Your task to perform on an android device: Open Google Chrome and open the bookmarks view Image 0: 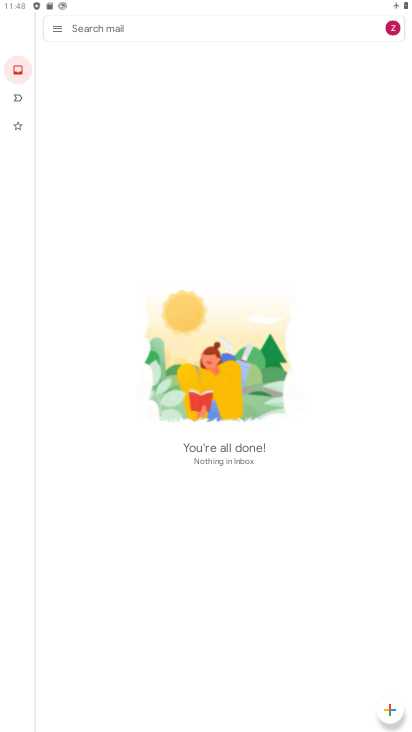
Step 0: press home button
Your task to perform on an android device: Open Google Chrome and open the bookmarks view Image 1: 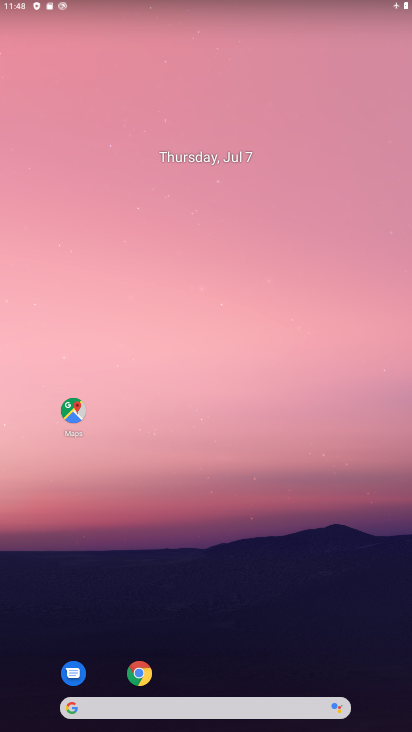
Step 1: click (142, 675)
Your task to perform on an android device: Open Google Chrome and open the bookmarks view Image 2: 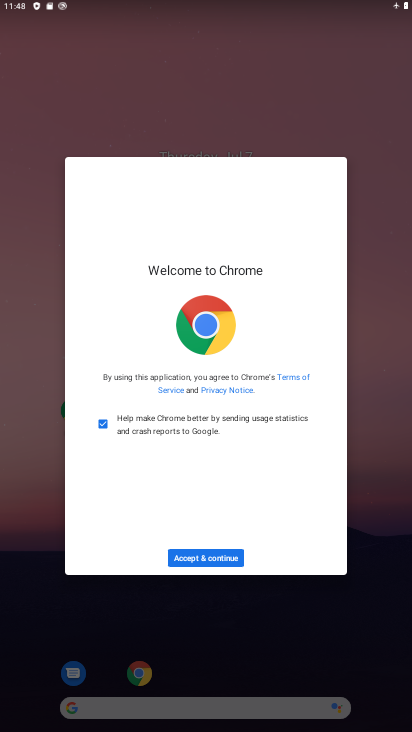
Step 2: click (218, 289)
Your task to perform on an android device: Open Google Chrome and open the bookmarks view Image 3: 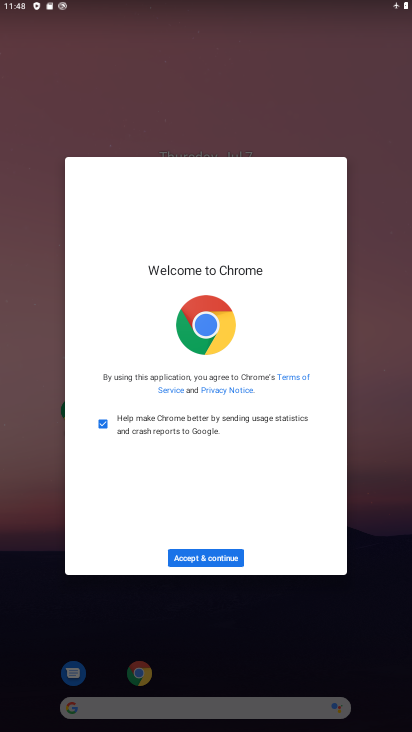
Step 3: click (205, 556)
Your task to perform on an android device: Open Google Chrome and open the bookmarks view Image 4: 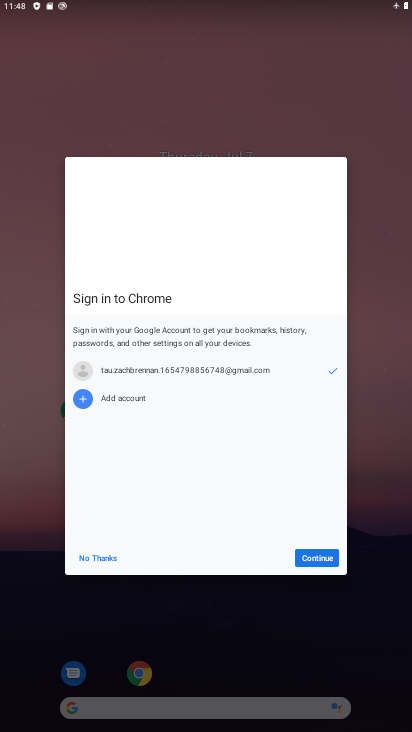
Step 4: click (305, 555)
Your task to perform on an android device: Open Google Chrome and open the bookmarks view Image 5: 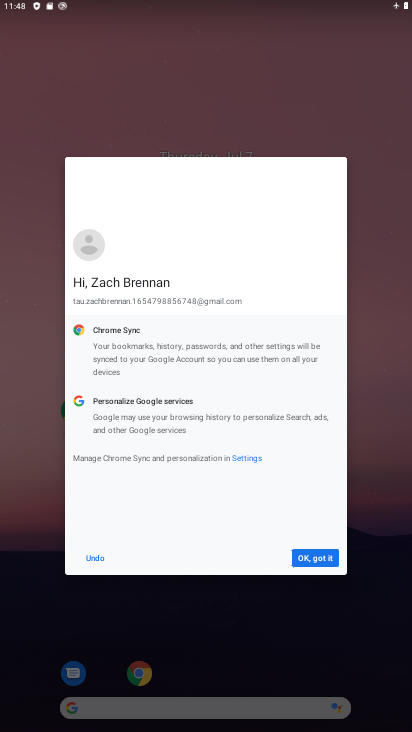
Step 5: click (320, 558)
Your task to perform on an android device: Open Google Chrome and open the bookmarks view Image 6: 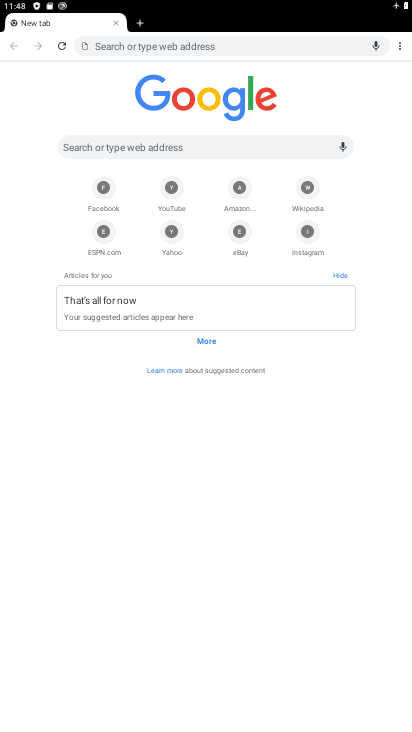
Step 6: click (398, 46)
Your task to perform on an android device: Open Google Chrome and open the bookmarks view Image 7: 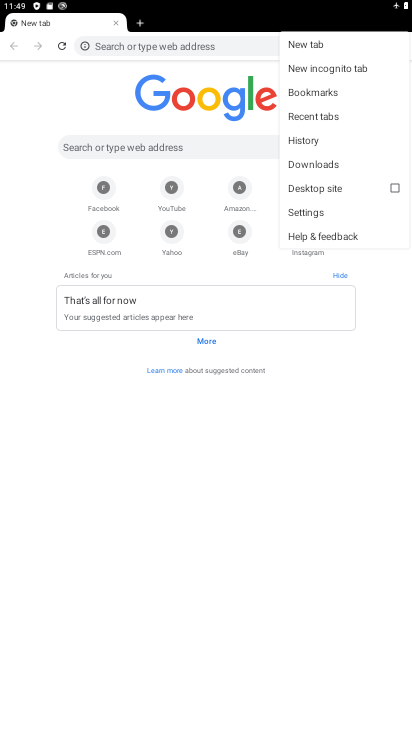
Step 7: click (329, 93)
Your task to perform on an android device: Open Google Chrome and open the bookmarks view Image 8: 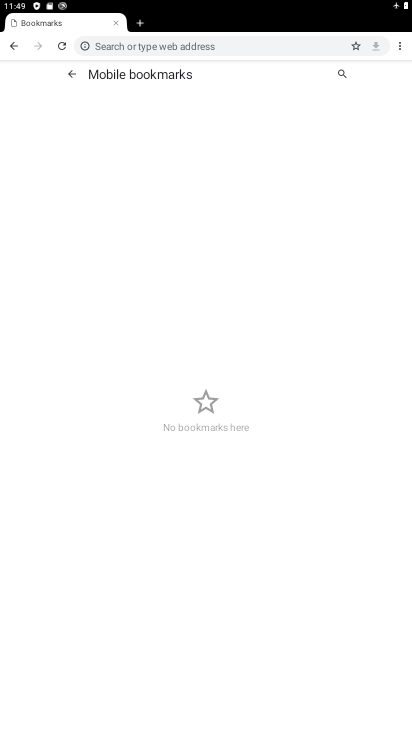
Step 8: task complete